Your task to perform on an android device: set the stopwatch Image 0: 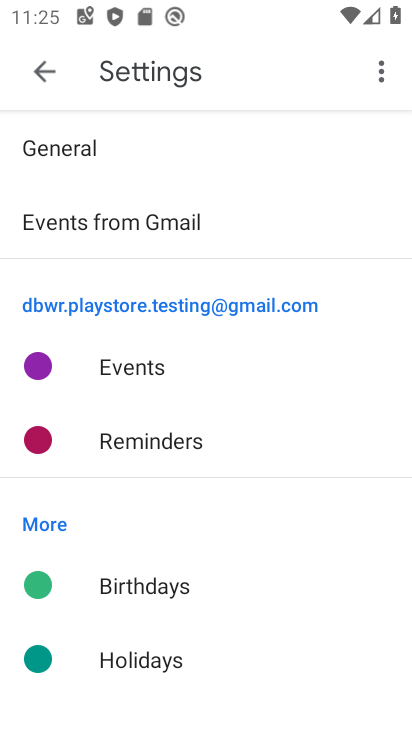
Step 0: press home button
Your task to perform on an android device: set the stopwatch Image 1: 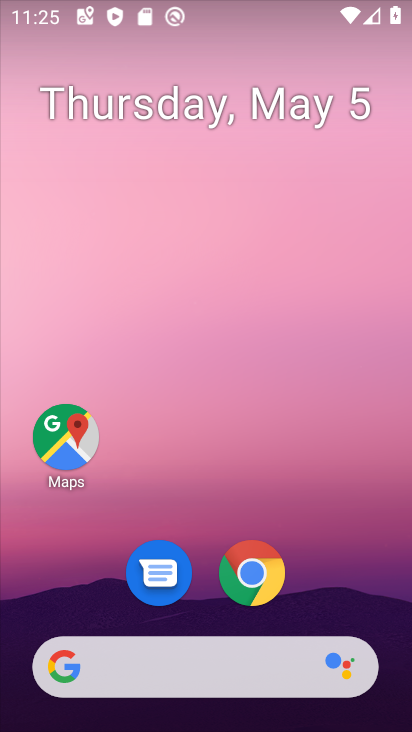
Step 1: drag from (321, 444) to (308, 257)
Your task to perform on an android device: set the stopwatch Image 2: 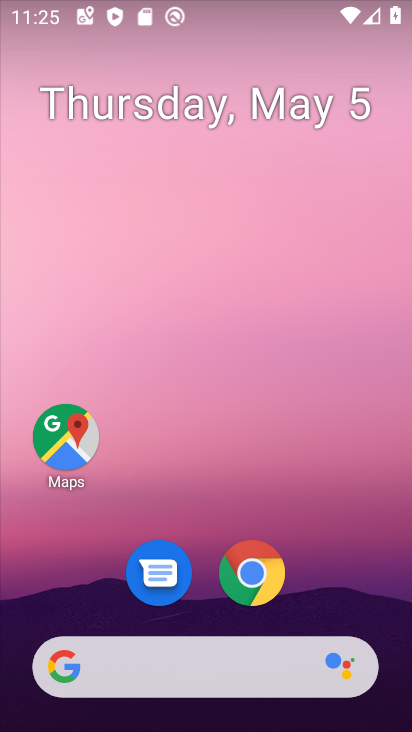
Step 2: drag from (335, 571) to (339, 267)
Your task to perform on an android device: set the stopwatch Image 3: 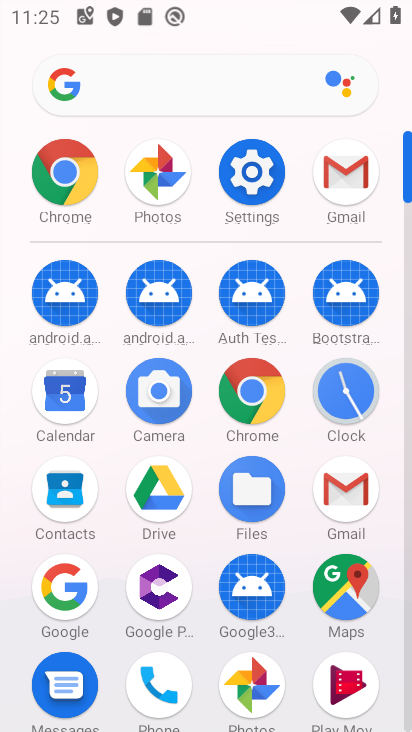
Step 3: click (350, 396)
Your task to perform on an android device: set the stopwatch Image 4: 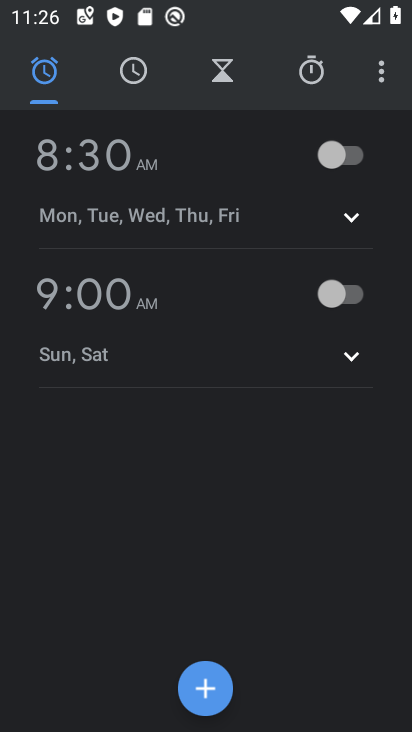
Step 4: click (315, 61)
Your task to perform on an android device: set the stopwatch Image 5: 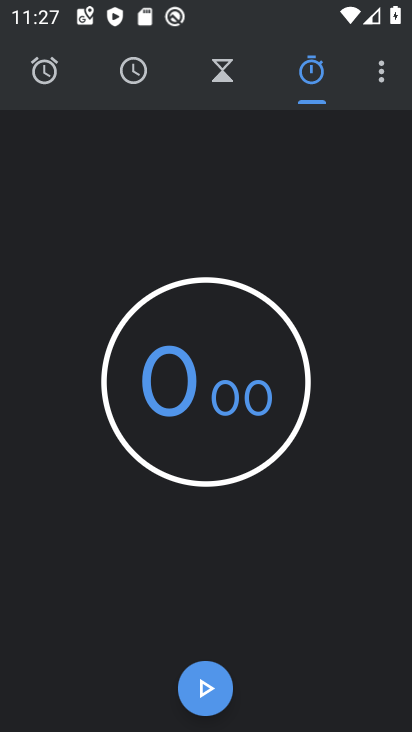
Step 5: task complete